Your task to perform on an android device: Go to ESPN.com Image 0: 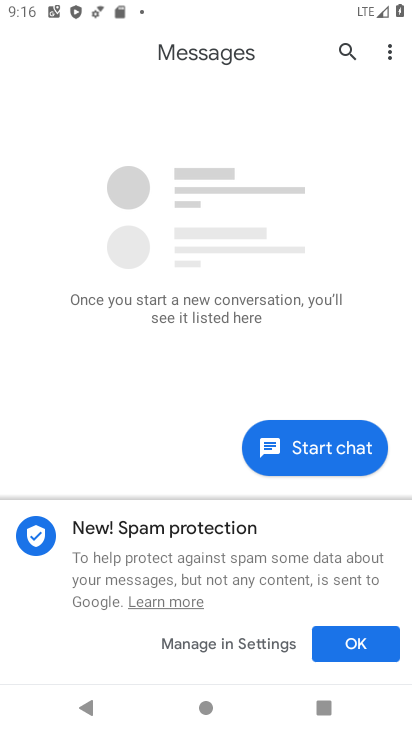
Step 0: press home button
Your task to perform on an android device: Go to ESPN.com Image 1: 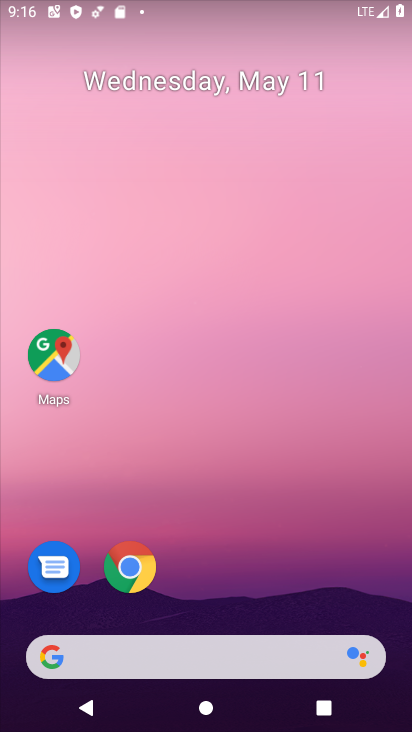
Step 1: click (125, 666)
Your task to perform on an android device: Go to ESPN.com Image 2: 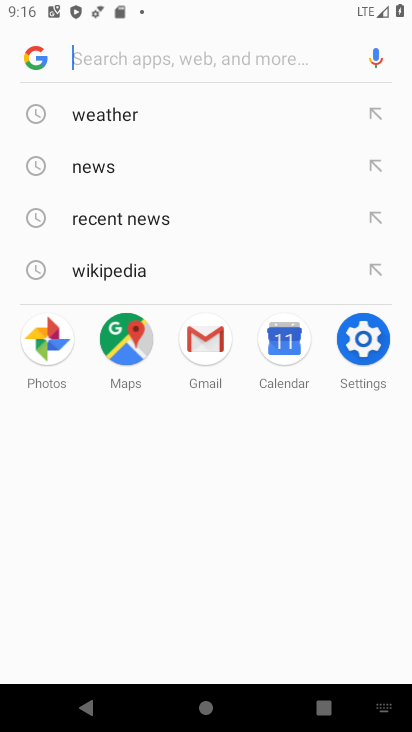
Step 2: type "espn.com"
Your task to perform on an android device: Go to ESPN.com Image 3: 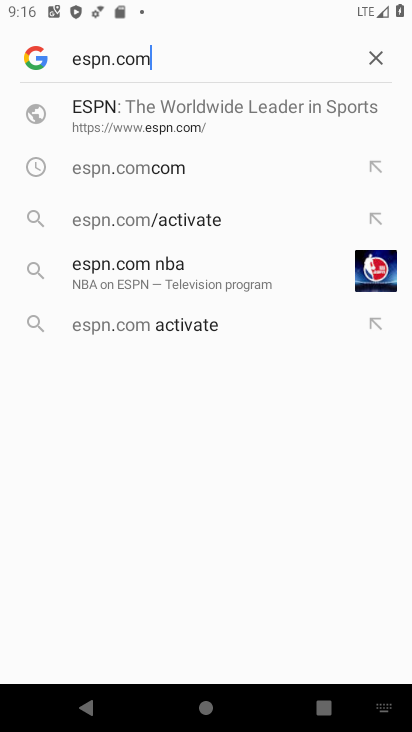
Step 3: click (261, 116)
Your task to perform on an android device: Go to ESPN.com Image 4: 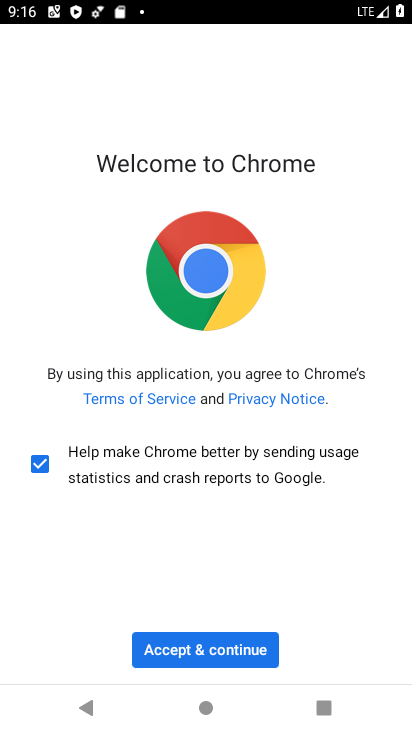
Step 4: click (226, 648)
Your task to perform on an android device: Go to ESPN.com Image 5: 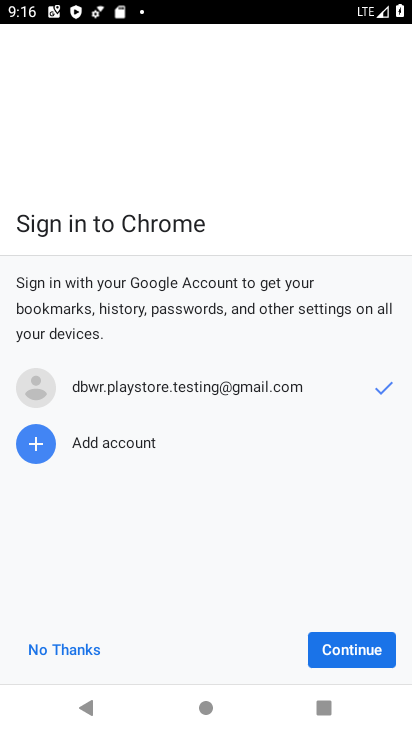
Step 5: click (329, 645)
Your task to perform on an android device: Go to ESPN.com Image 6: 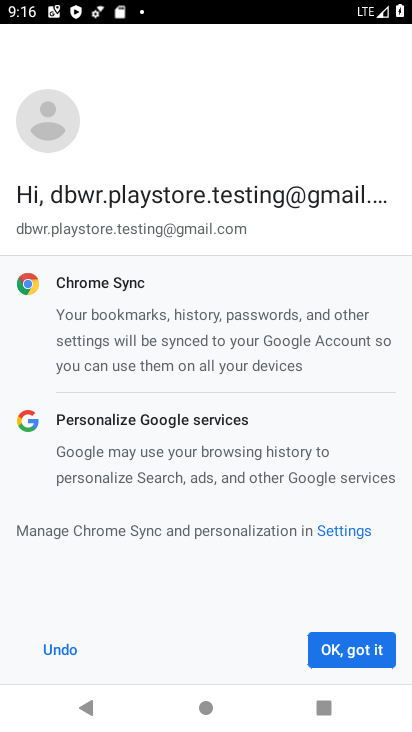
Step 6: click (356, 666)
Your task to perform on an android device: Go to ESPN.com Image 7: 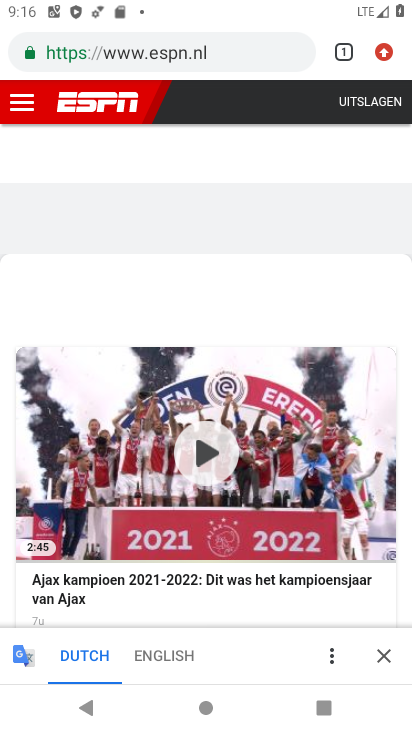
Step 7: task complete